Your task to perform on an android device: Go to ESPN.com Image 0: 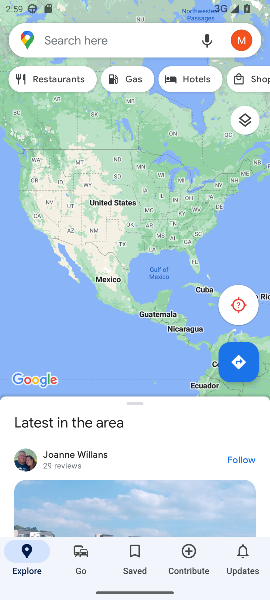
Step 0: press home button
Your task to perform on an android device: Go to ESPN.com Image 1: 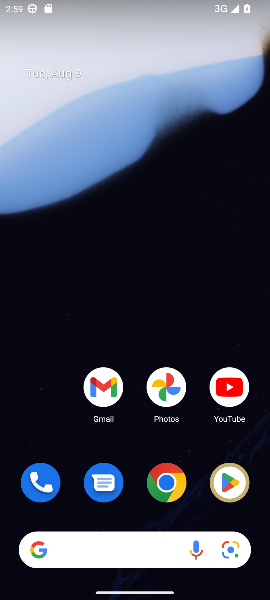
Step 1: click (158, 468)
Your task to perform on an android device: Go to ESPN.com Image 2: 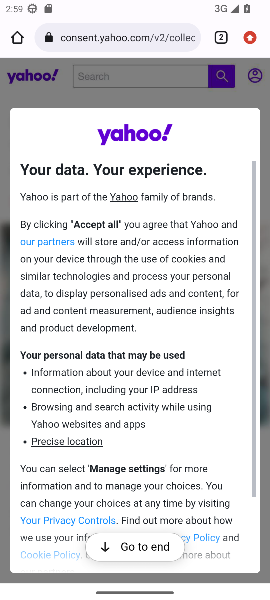
Step 2: click (219, 37)
Your task to perform on an android device: Go to ESPN.com Image 3: 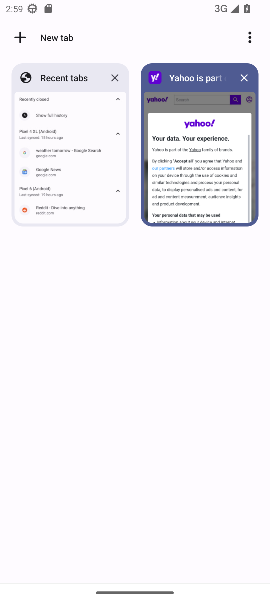
Step 3: click (19, 39)
Your task to perform on an android device: Go to ESPN.com Image 4: 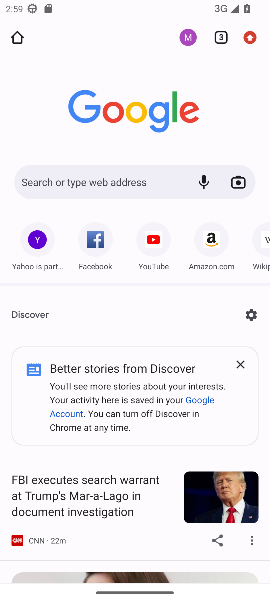
Step 4: click (99, 178)
Your task to perform on an android device: Go to ESPN.com Image 5: 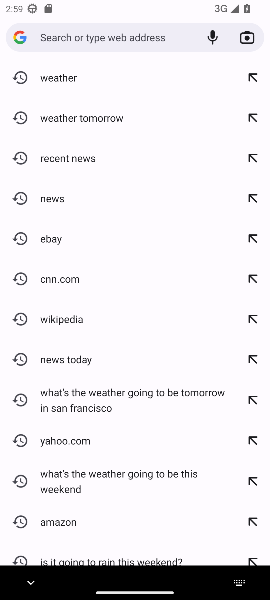
Step 5: type "ESPN.com"
Your task to perform on an android device: Go to ESPN.com Image 6: 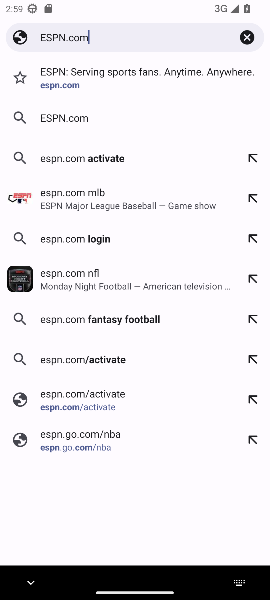
Step 6: click (74, 77)
Your task to perform on an android device: Go to ESPN.com Image 7: 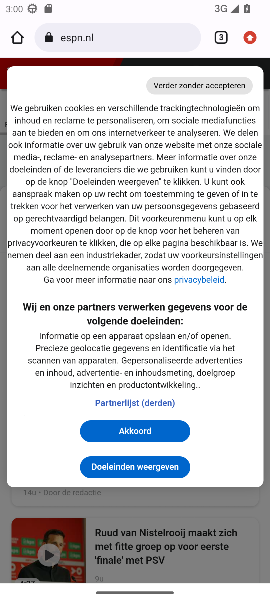
Step 7: click (165, 427)
Your task to perform on an android device: Go to ESPN.com Image 8: 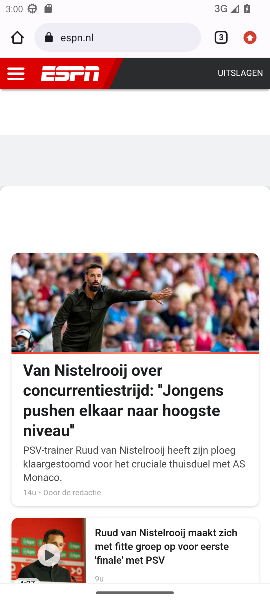
Step 8: task complete